Your task to perform on an android device: Go to notification settings Image 0: 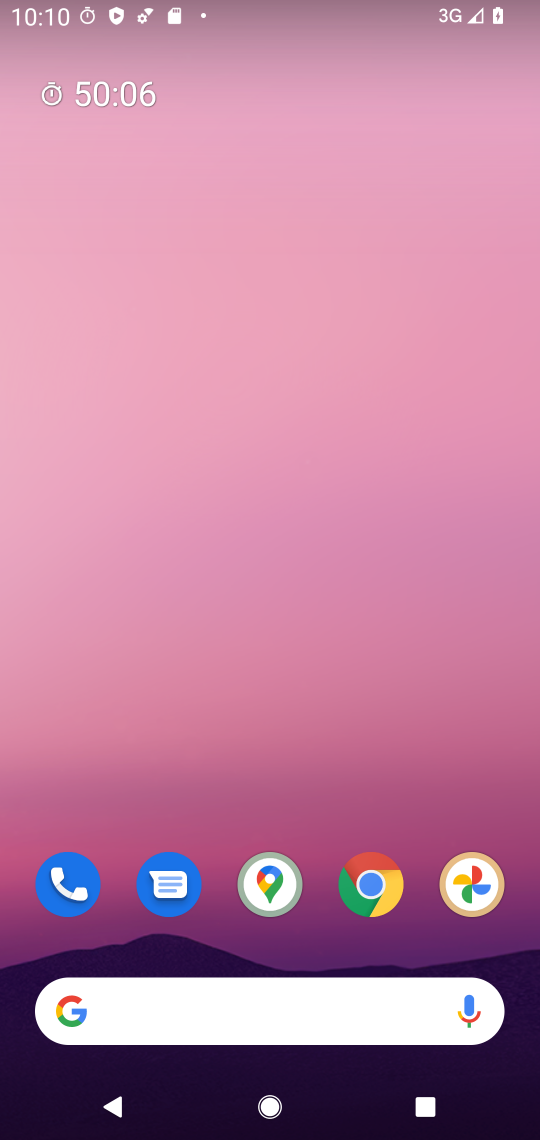
Step 0: drag from (345, 765) to (377, 8)
Your task to perform on an android device: Go to notification settings Image 1: 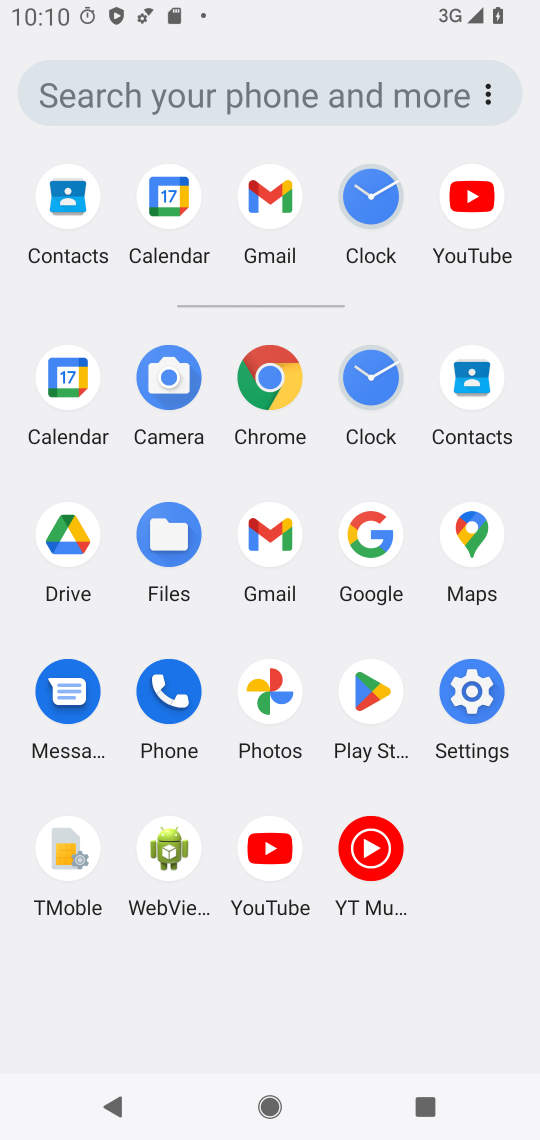
Step 1: click (471, 691)
Your task to perform on an android device: Go to notification settings Image 2: 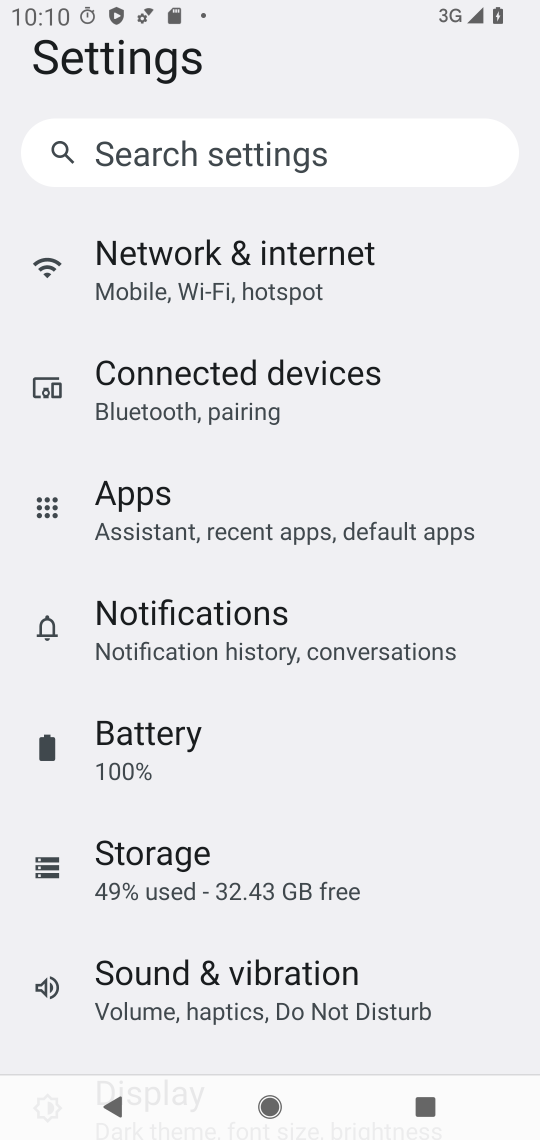
Step 2: click (297, 646)
Your task to perform on an android device: Go to notification settings Image 3: 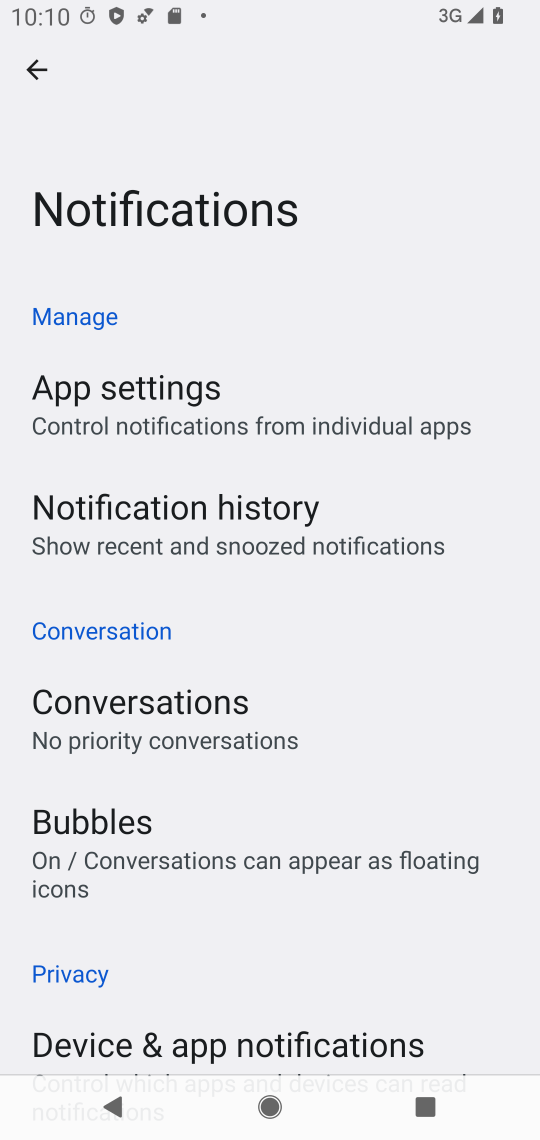
Step 3: task complete